Your task to perform on an android device: open sync settings in chrome Image 0: 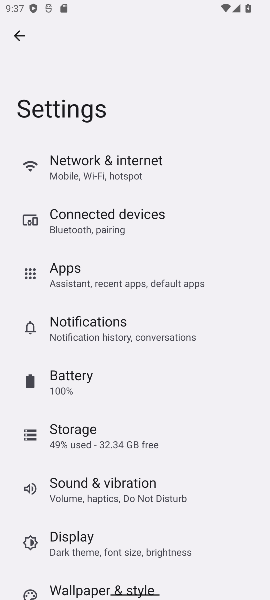
Step 0: press home button
Your task to perform on an android device: open sync settings in chrome Image 1: 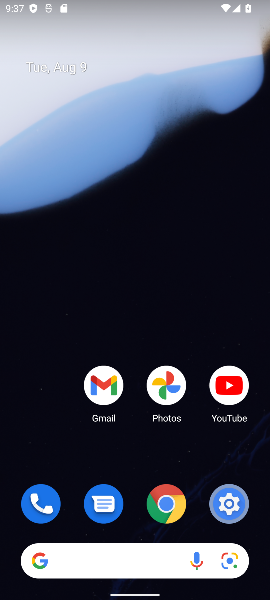
Step 1: click (164, 501)
Your task to perform on an android device: open sync settings in chrome Image 2: 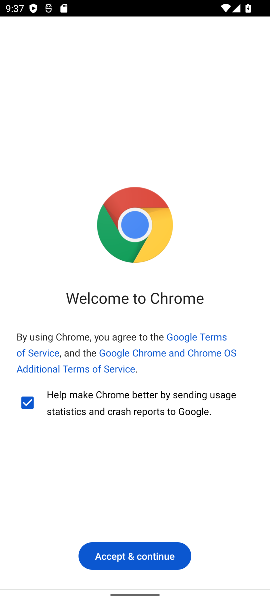
Step 2: click (147, 545)
Your task to perform on an android device: open sync settings in chrome Image 3: 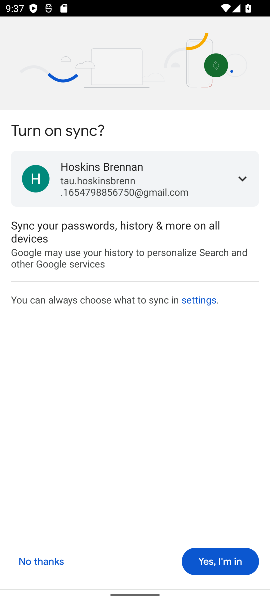
Step 3: click (213, 562)
Your task to perform on an android device: open sync settings in chrome Image 4: 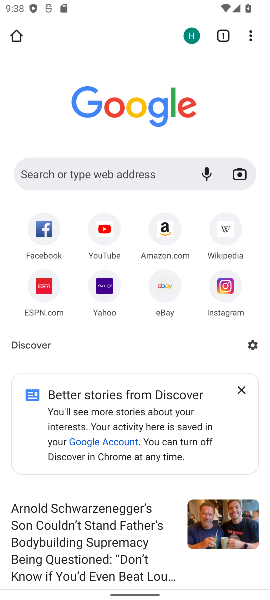
Step 4: click (250, 35)
Your task to perform on an android device: open sync settings in chrome Image 5: 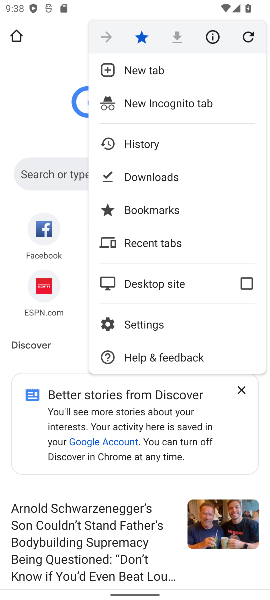
Step 5: click (145, 323)
Your task to perform on an android device: open sync settings in chrome Image 6: 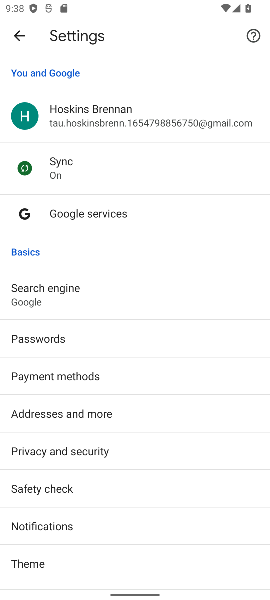
Step 6: drag from (175, 474) to (180, 221)
Your task to perform on an android device: open sync settings in chrome Image 7: 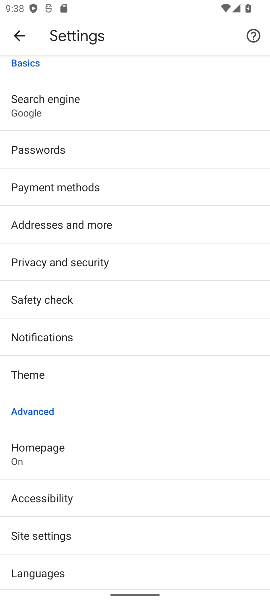
Step 7: drag from (185, 521) to (201, 279)
Your task to perform on an android device: open sync settings in chrome Image 8: 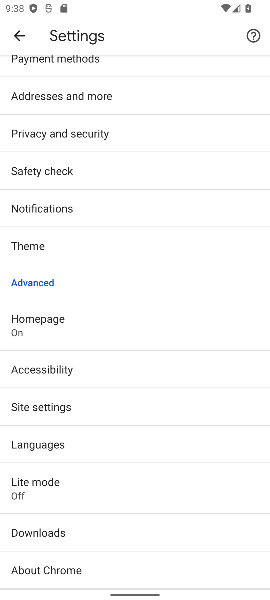
Step 8: click (46, 401)
Your task to perform on an android device: open sync settings in chrome Image 9: 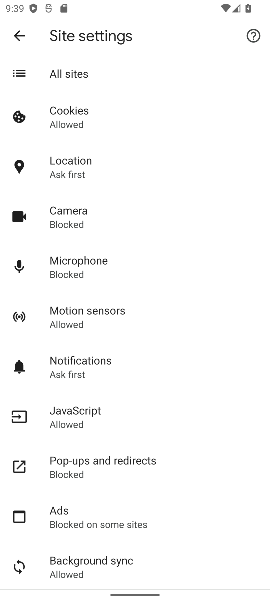
Step 9: click (90, 557)
Your task to perform on an android device: open sync settings in chrome Image 10: 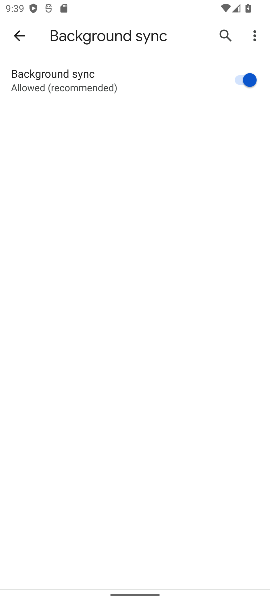
Step 10: task complete